Your task to perform on an android device: Show me popular games on the Play Store Image 0: 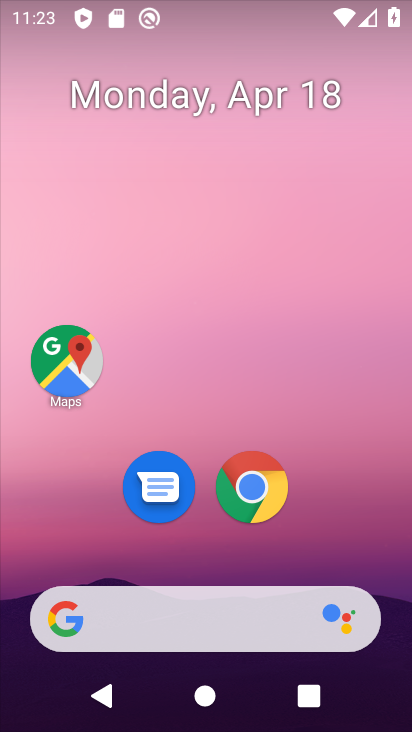
Step 0: drag from (290, 444) to (237, 38)
Your task to perform on an android device: Show me popular games on the Play Store Image 1: 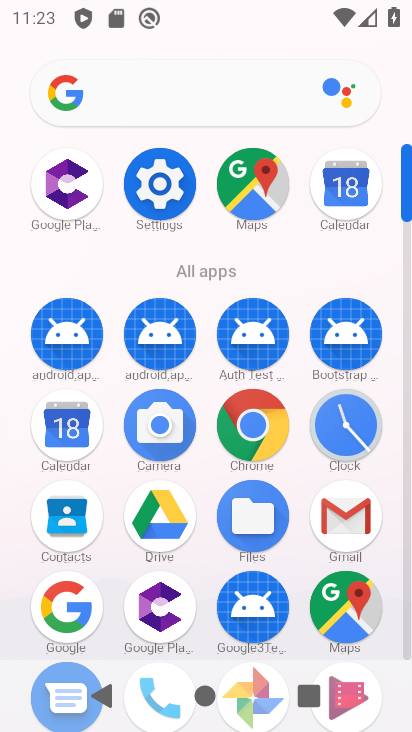
Step 1: drag from (184, 669) to (181, 205)
Your task to perform on an android device: Show me popular games on the Play Store Image 2: 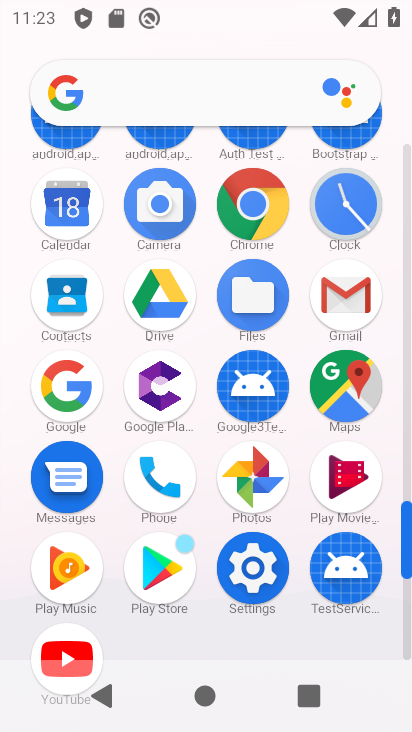
Step 2: click (166, 575)
Your task to perform on an android device: Show me popular games on the Play Store Image 3: 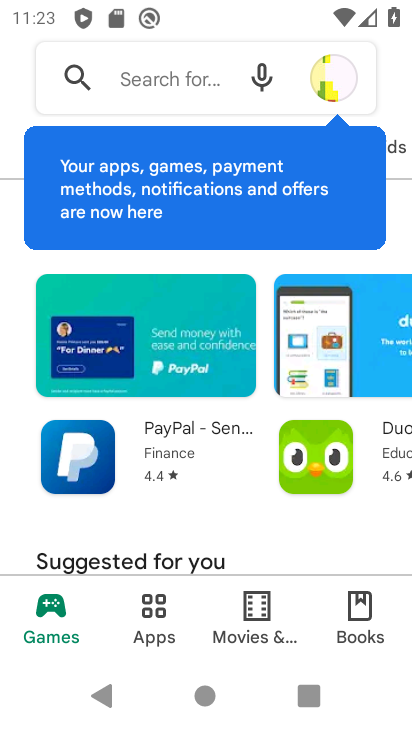
Step 3: click (51, 615)
Your task to perform on an android device: Show me popular games on the Play Store Image 4: 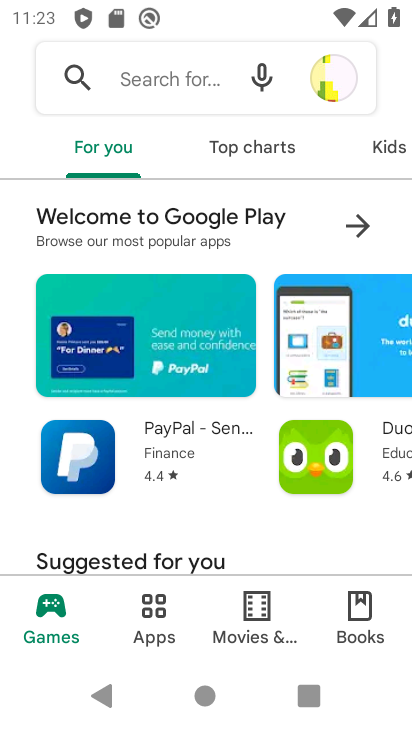
Step 4: drag from (217, 475) to (200, 250)
Your task to perform on an android device: Show me popular games on the Play Store Image 5: 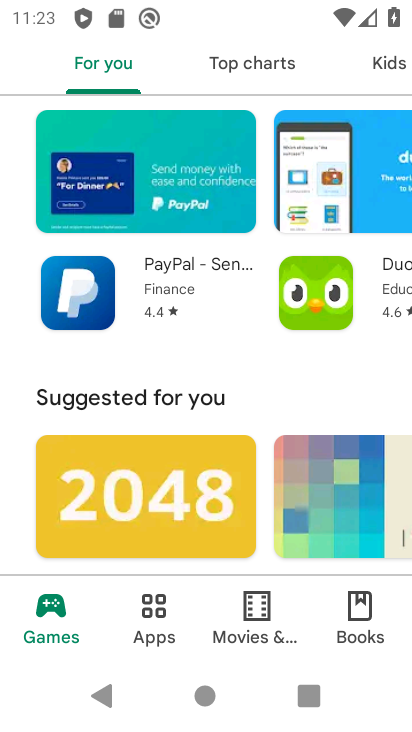
Step 5: click (48, 624)
Your task to perform on an android device: Show me popular games on the Play Store Image 6: 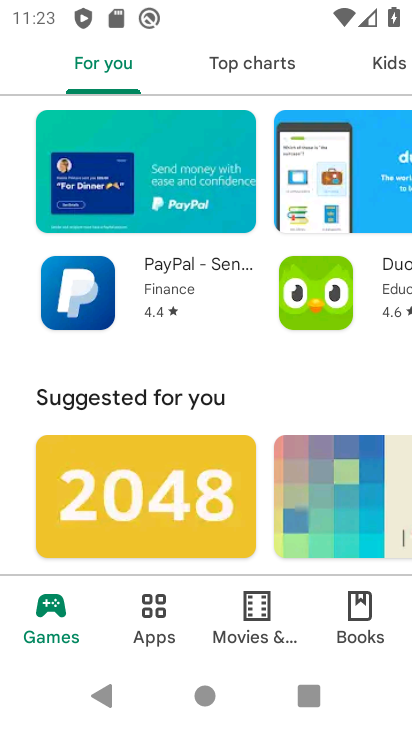
Step 6: task complete